Your task to perform on an android device: check data usage Image 0: 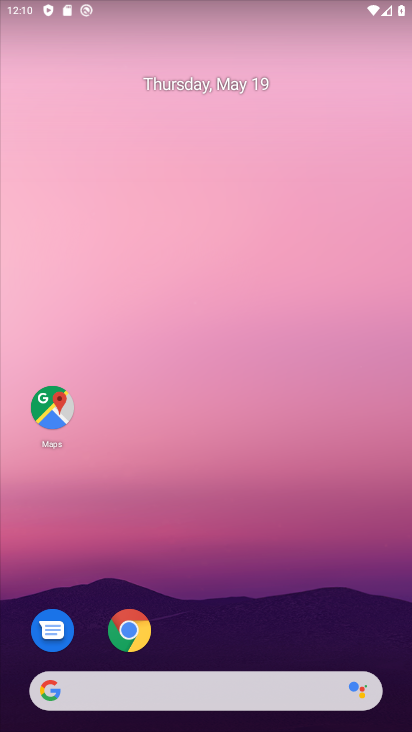
Step 0: drag from (260, 530) to (283, 207)
Your task to perform on an android device: check data usage Image 1: 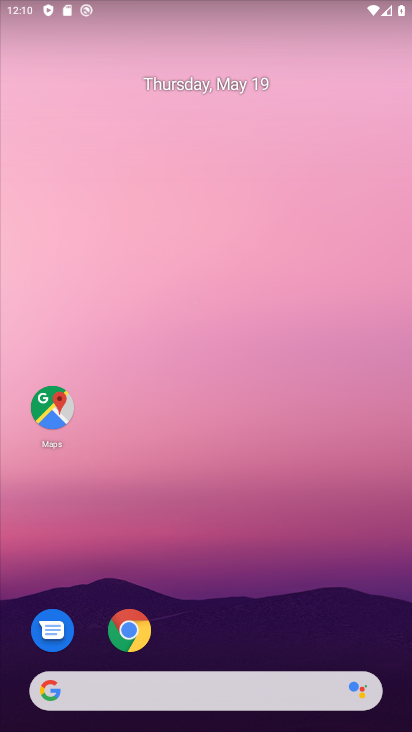
Step 1: drag from (185, 638) to (269, 126)
Your task to perform on an android device: check data usage Image 2: 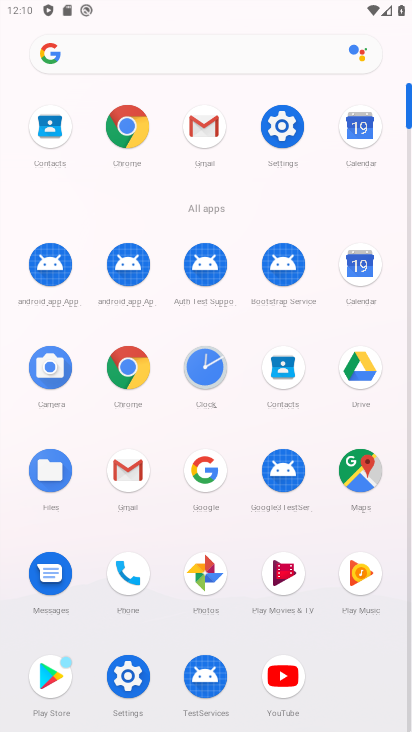
Step 2: click (285, 124)
Your task to perform on an android device: check data usage Image 3: 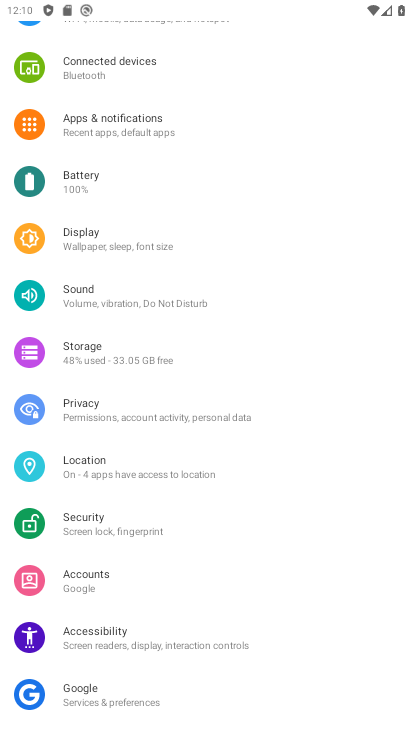
Step 3: drag from (123, 75) to (156, 541)
Your task to perform on an android device: check data usage Image 4: 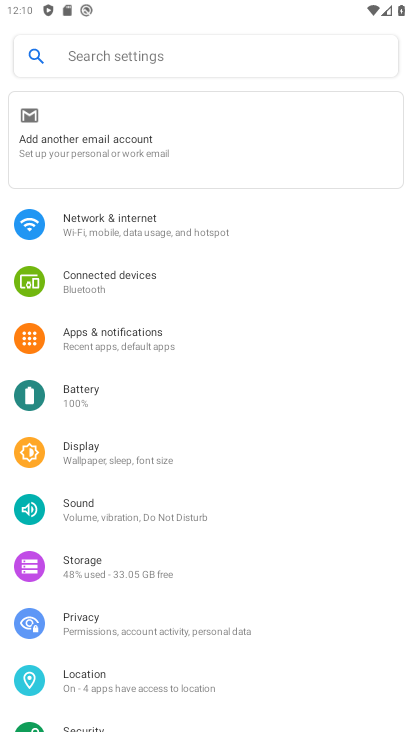
Step 4: click (126, 218)
Your task to perform on an android device: check data usage Image 5: 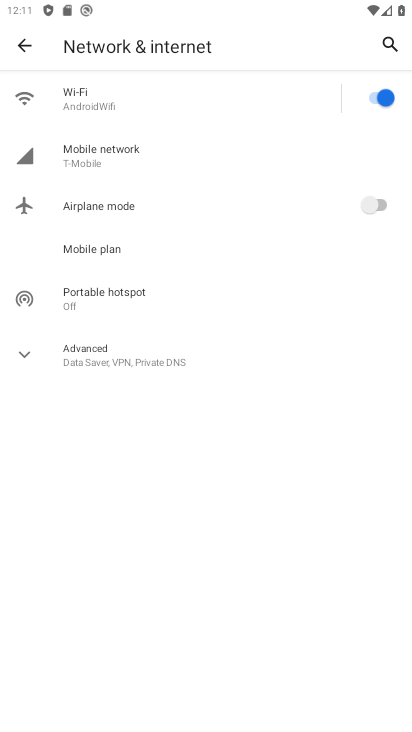
Step 5: click (132, 149)
Your task to perform on an android device: check data usage Image 6: 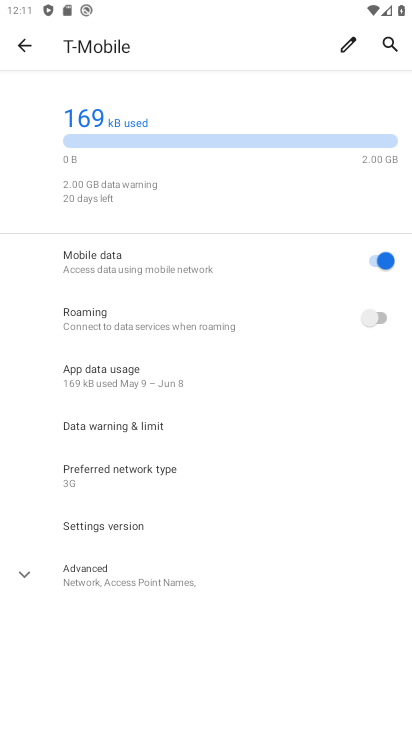
Step 6: click (129, 384)
Your task to perform on an android device: check data usage Image 7: 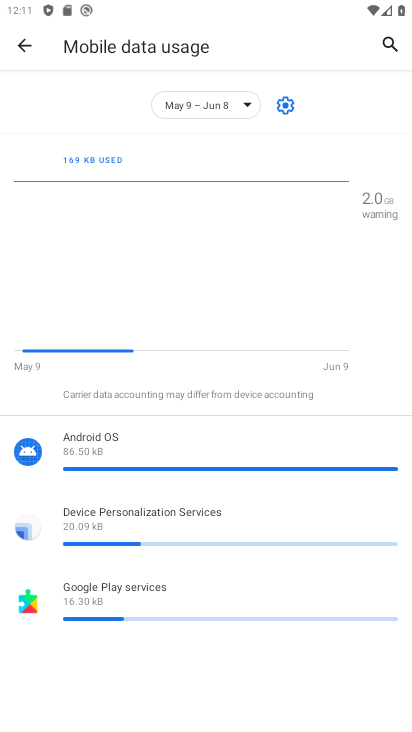
Step 7: task complete